Your task to perform on an android device: Open Youtube and go to "Your channel" Image 0: 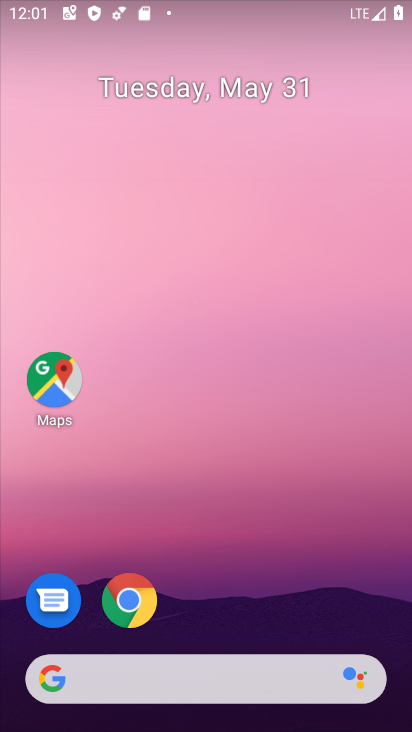
Step 0: drag from (226, 712) to (215, 110)
Your task to perform on an android device: Open Youtube and go to "Your channel" Image 1: 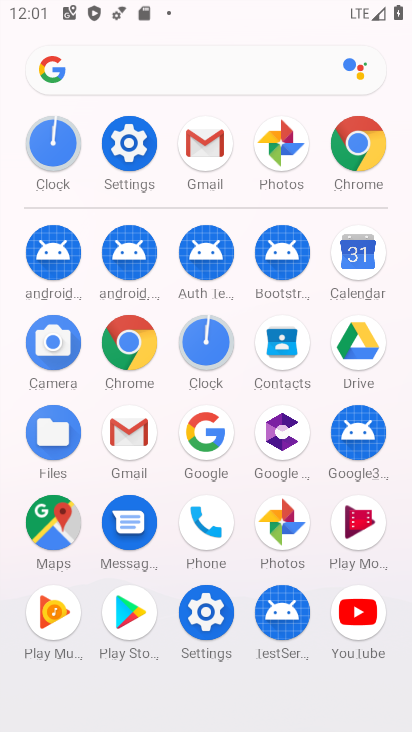
Step 1: click (354, 617)
Your task to perform on an android device: Open Youtube and go to "Your channel" Image 2: 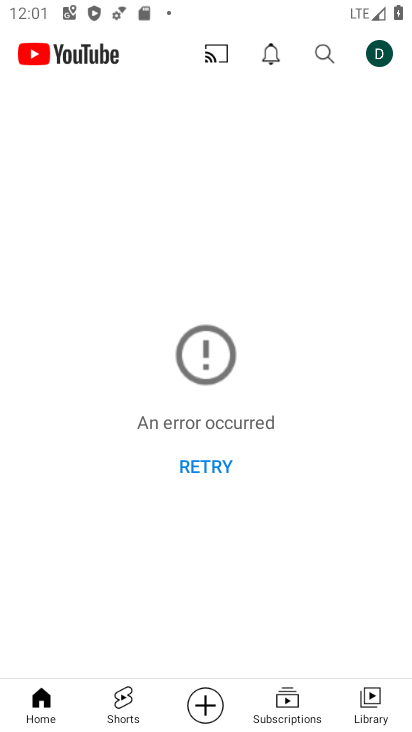
Step 2: click (379, 54)
Your task to perform on an android device: Open Youtube and go to "Your channel" Image 3: 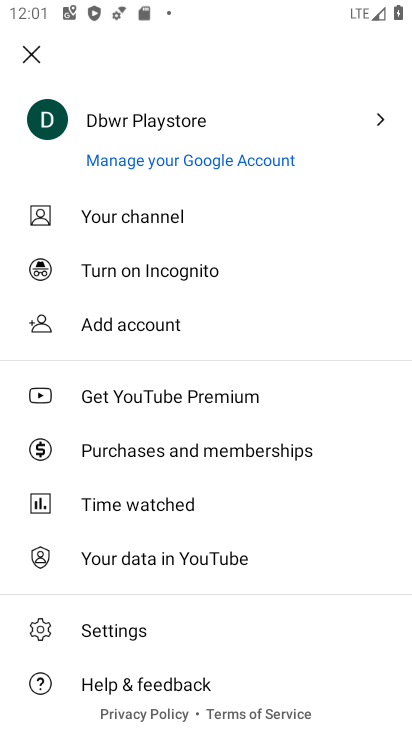
Step 3: click (144, 215)
Your task to perform on an android device: Open Youtube and go to "Your channel" Image 4: 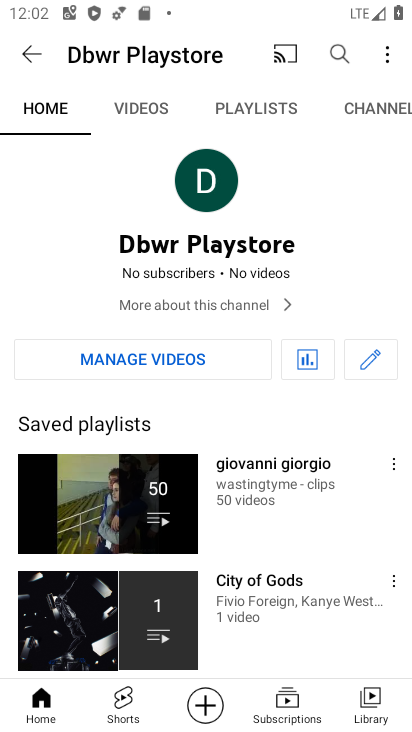
Step 4: task complete